Your task to perform on an android device: change timer sound Image 0: 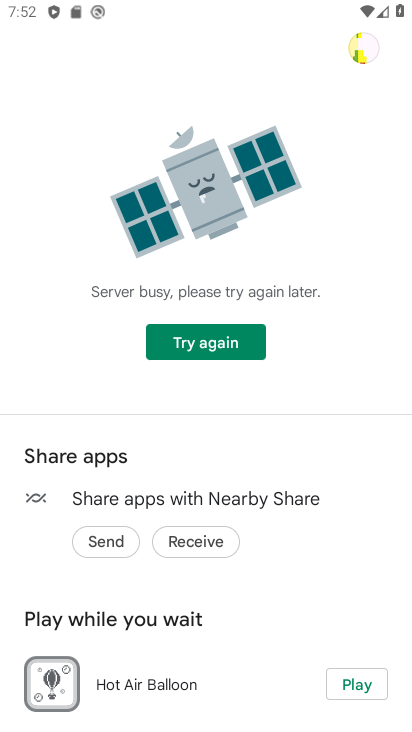
Step 0: press home button
Your task to perform on an android device: change timer sound Image 1: 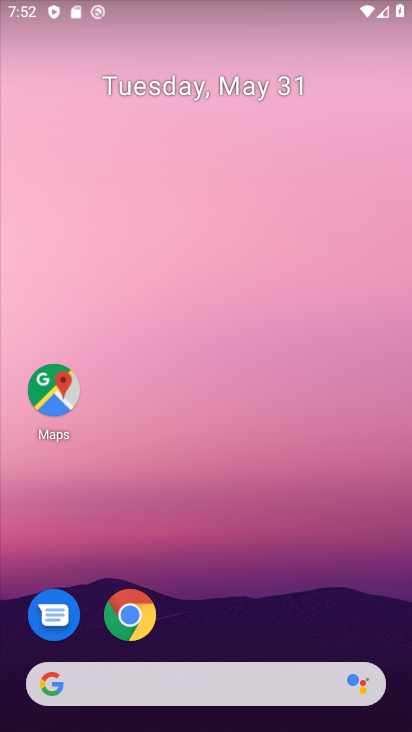
Step 1: drag from (225, 619) to (233, 4)
Your task to perform on an android device: change timer sound Image 2: 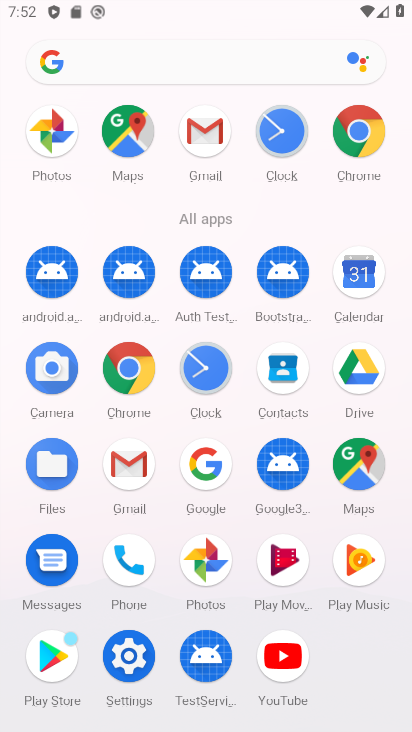
Step 2: click (213, 371)
Your task to perform on an android device: change timer sound Image 3: 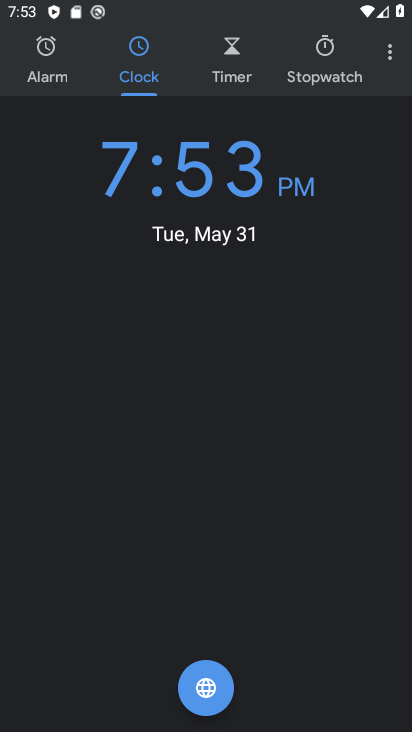
Step 3: click (394, 56)
Your task to perform on an android device: change timer sound Image 4: 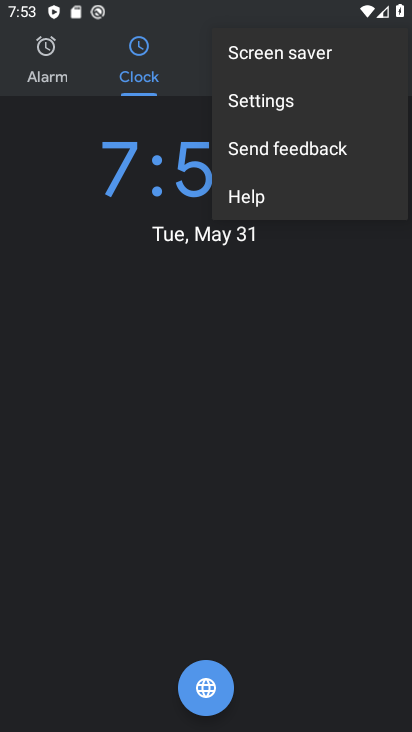
Step 4: click (302, 88)
Your task to perform on an android device: change timer sound Image 5: 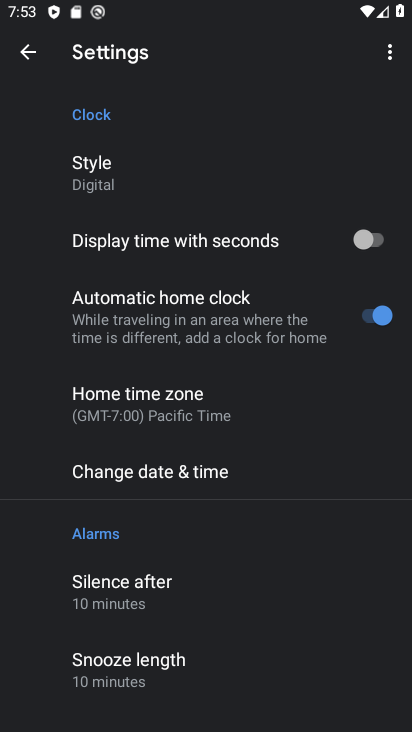
Step 5: drag from (152, 594) to (212, 33)
Your task to perform on an android device: change timer sound Image 6: 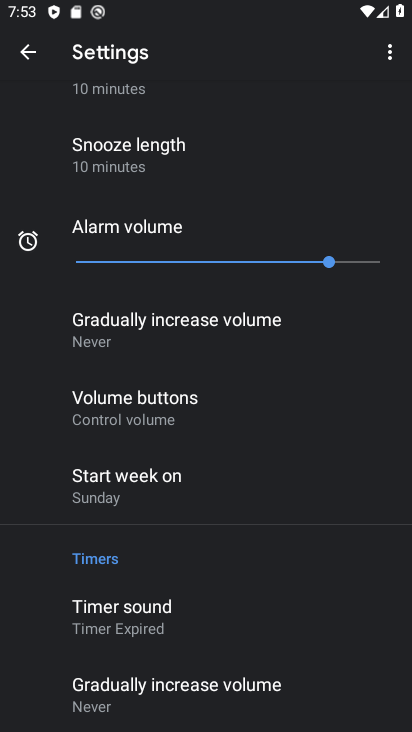
Step 6: click (156, 607)
Your task to perform on an android device: change timer sound Image 7: 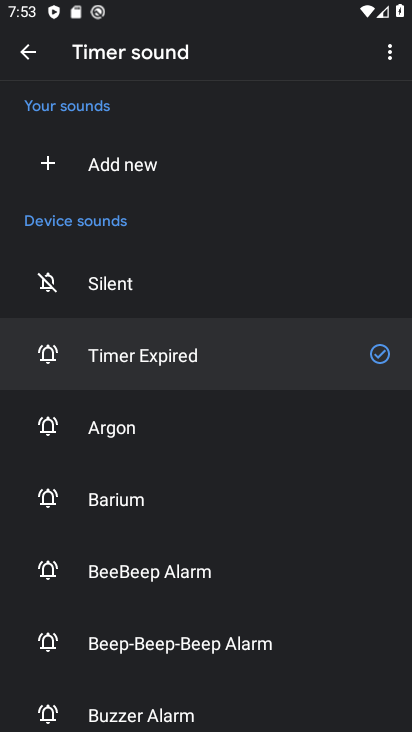
Step 7: click (117, 440)
Your task to perform on an android device: change timer sound Image 8: 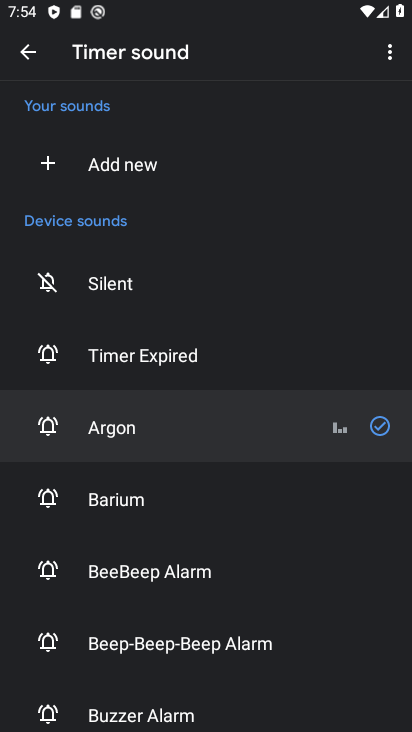
Step 8: task complete